Your task to perform on an android device: turn off priority inbox in the gmail app Image 0: 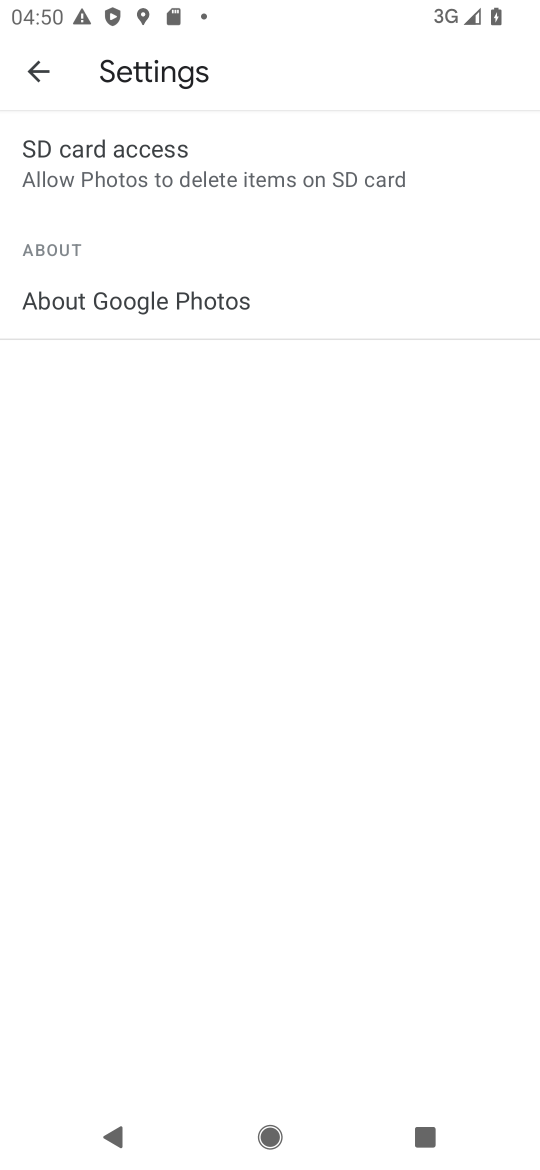
Step 0: press home button
Your task to perform on an android device: turn off priority inbox in the gmail app Image 1: 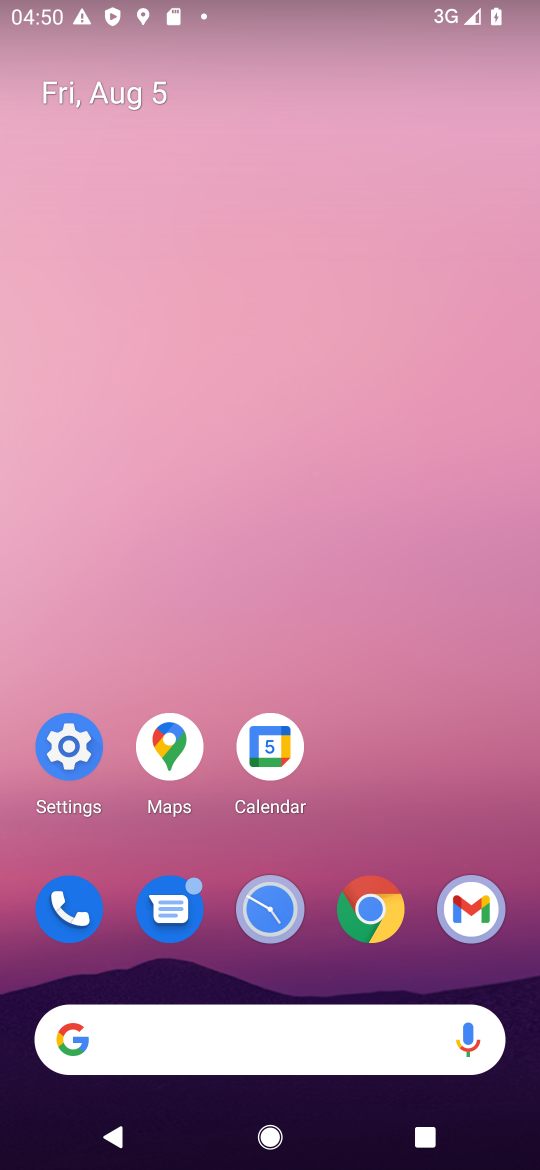
Step 1: click (475, 903)
Your task to perform on an android device: turn off priority inbox in the gmail app Image 2: 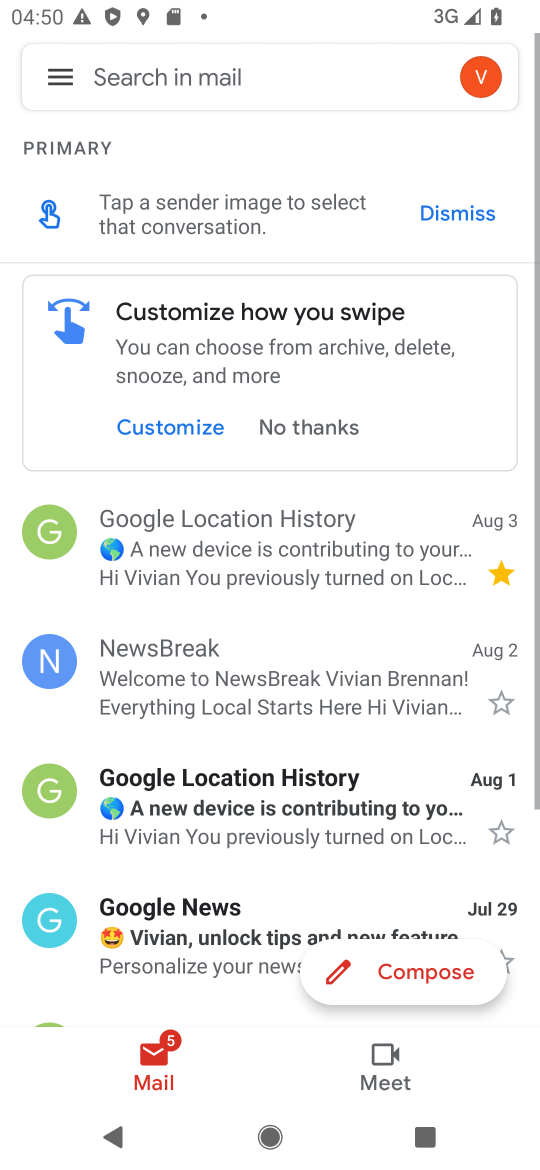
Step 2: click (54, 73)
Your task to perform on an android device: turn off priority inbox in the gmail app Image 3: 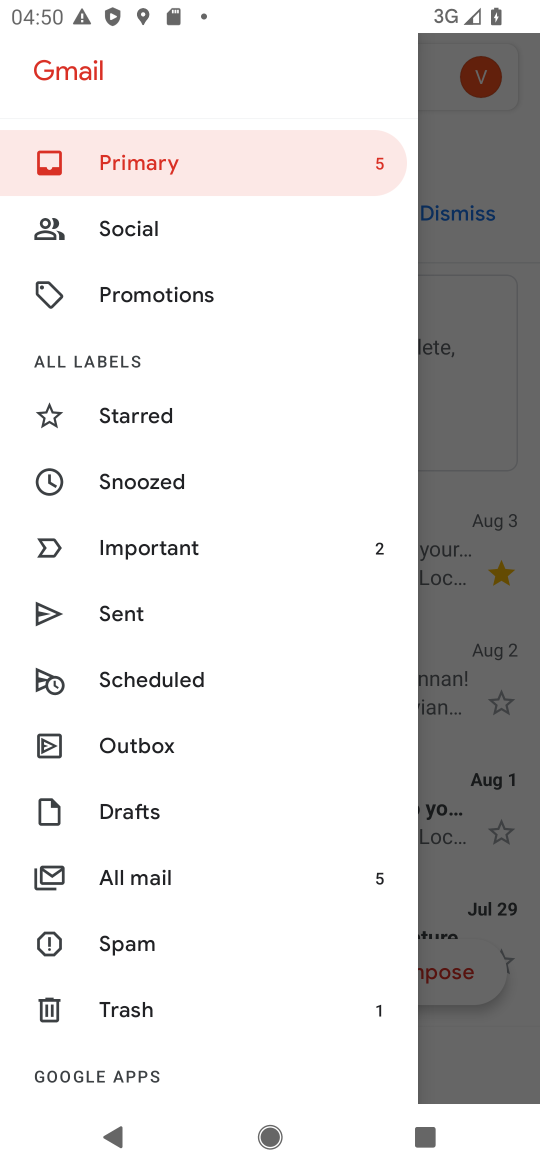
Step 3: drag from (225, 867) to (218, 237)
Your task to perform on an android device: turn off priority inbox in the gmail app Image 4: 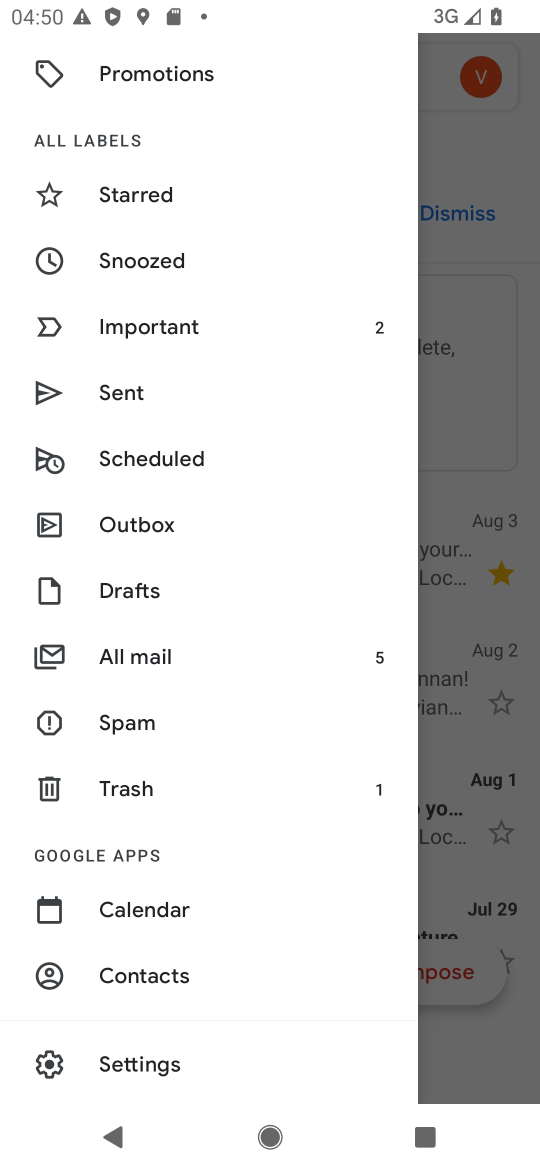
Step 4: click (147, 1061)
Your task to perform on an android device: turn off priority inbox in the gmail app Image 5: 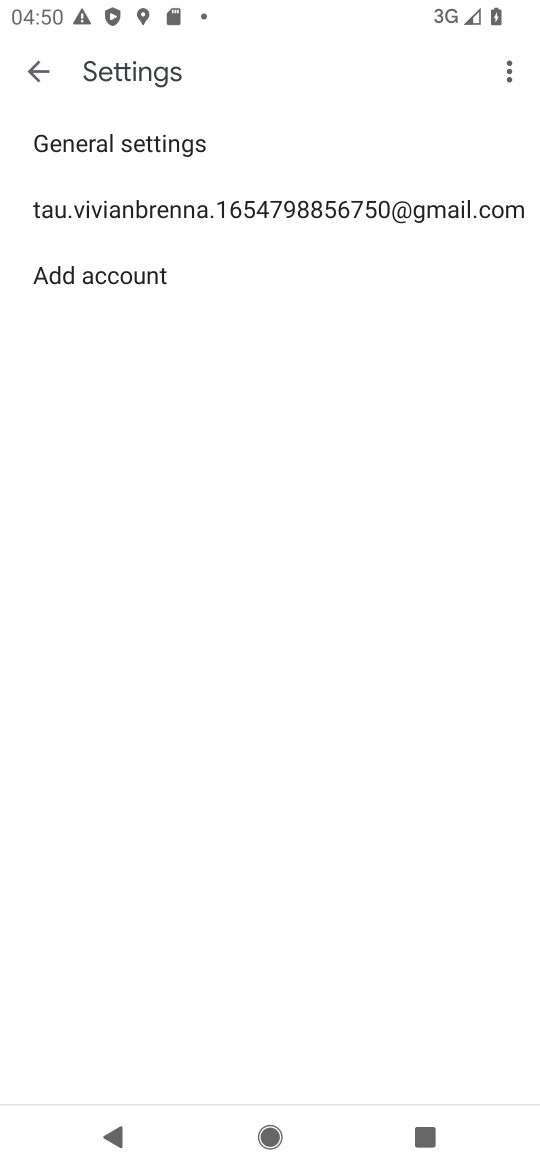
Step 5: click (105, 201)
Your task to perform on an android device: turn off priority inbox in the gmail app Image 6: 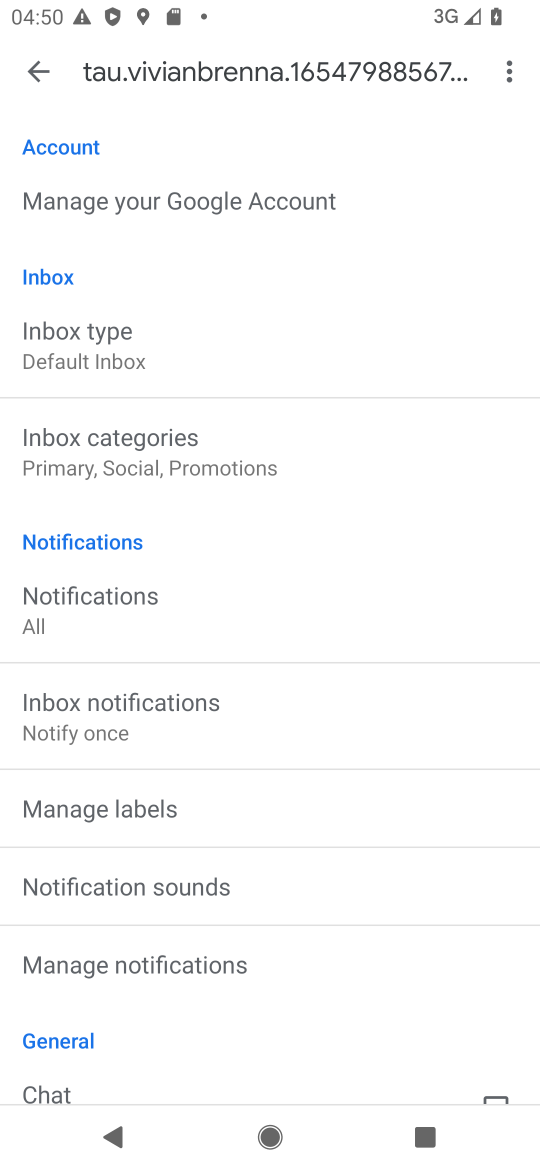
Step 6: click (80, 343)
Your task to perform on an android device: turn off priority inbox in the gmail app Image 7: 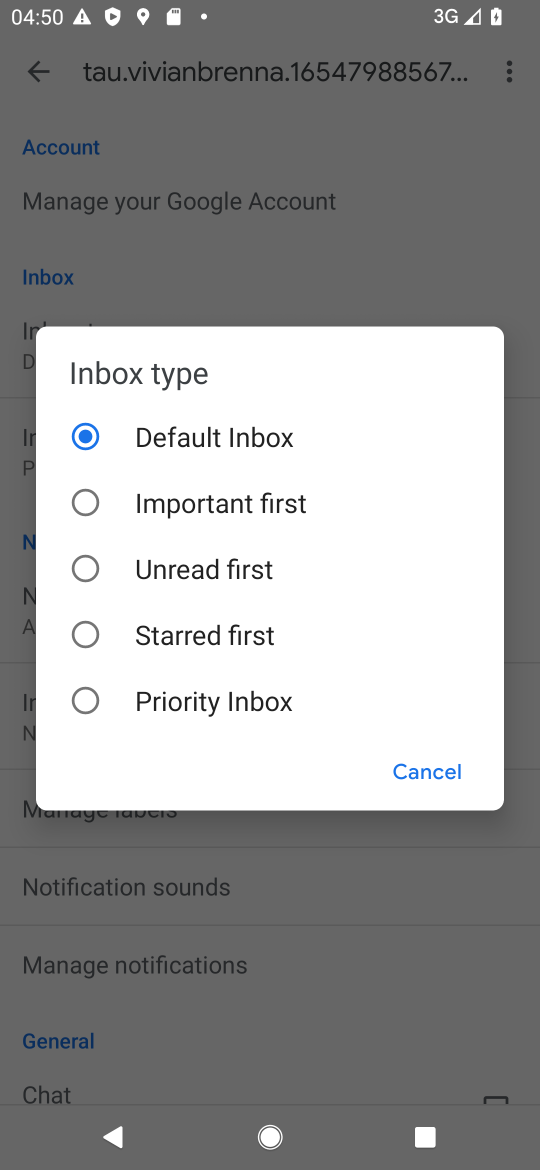
Step 7: task complete